Your task to perform on an android device: Go to Amazon Image 0: 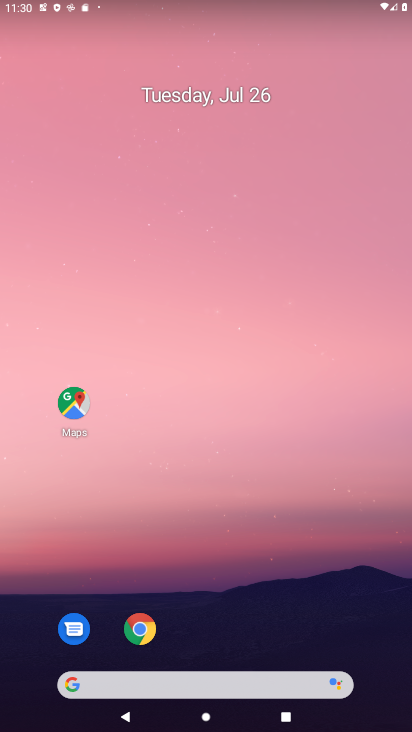
Step 0: click (264, 690)
Your task to perform on an android device: Go to Amazon Image 1: 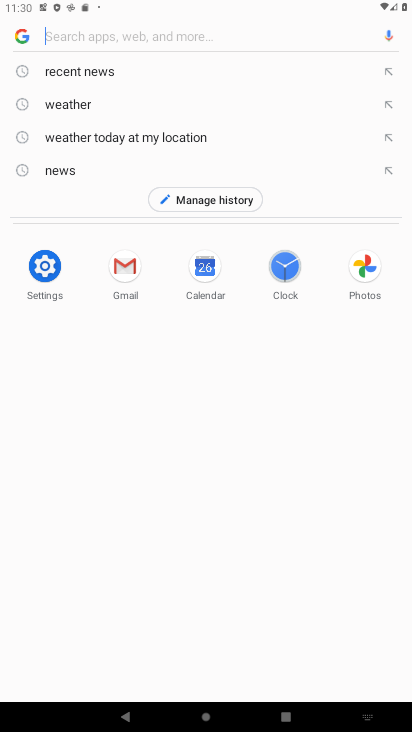
Step 1: type "amazone"
Your task to perform on an android device: Go to Amazon Image 2: 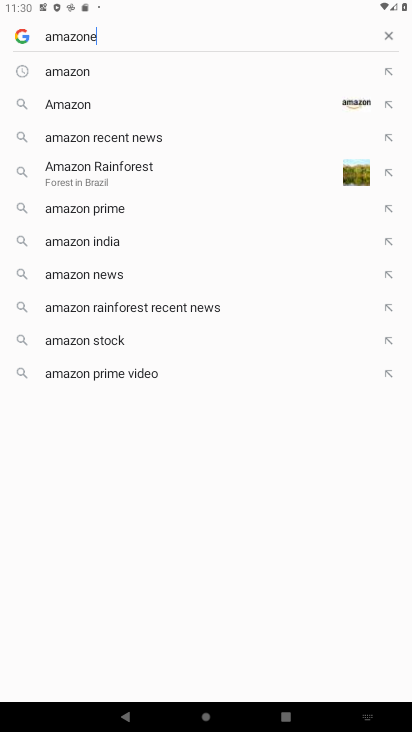
Step 2: click (129, 74)
Your task to perform on an android device: Go to Amazon Image 3: 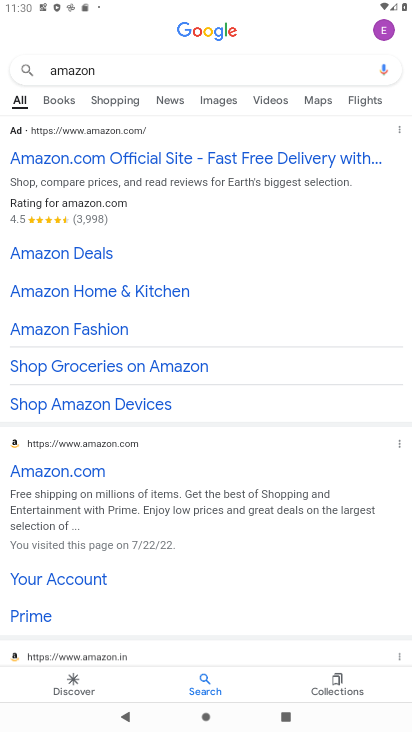
Step 3: click (109, 163)
Your task to perform on an android device: Go to Amazon Image 4: 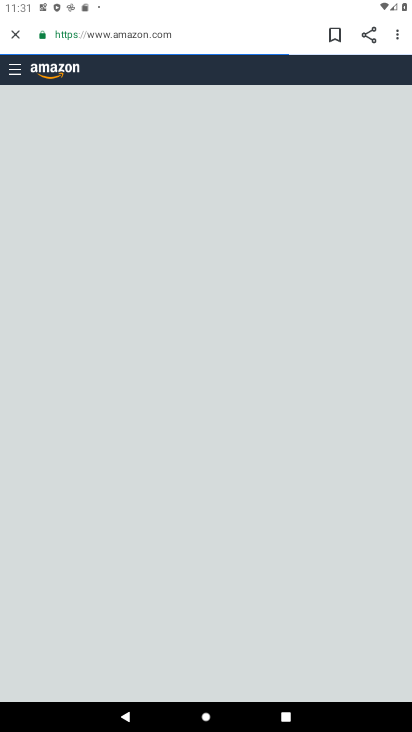
Step 4: task complete